Your task to perform on an android device: turn on sleep mode Image 0: 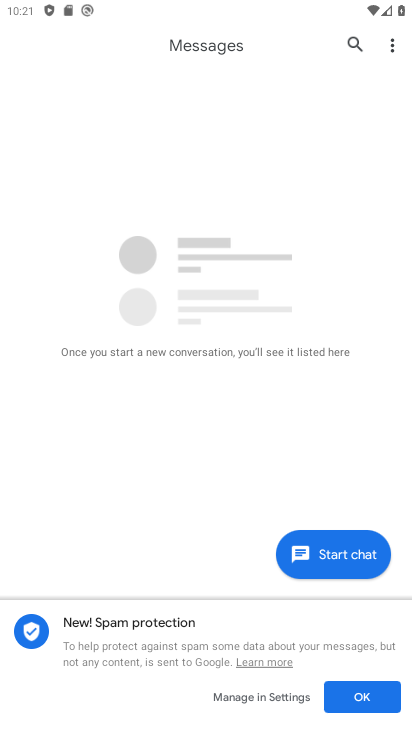
Step 0: press home button
Your task to perform on an android device: turn on sleep mode Image 1: 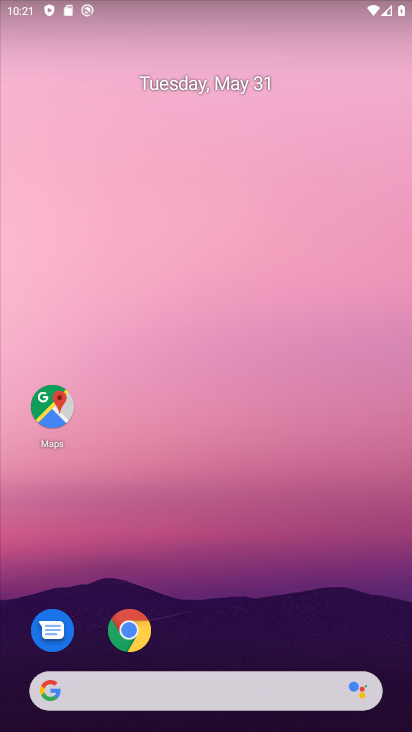
Step 1: task complete